Your task to perform on an android device: turn on wifi Image 0: 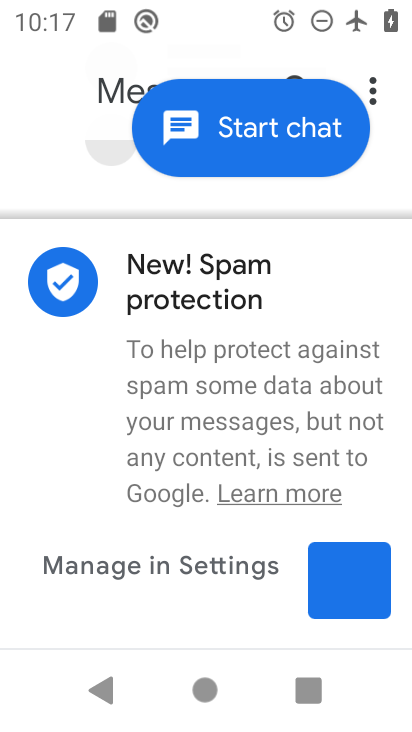
Step 0: press home button
Your task to perform on an android device: turn on wifi Image 1: 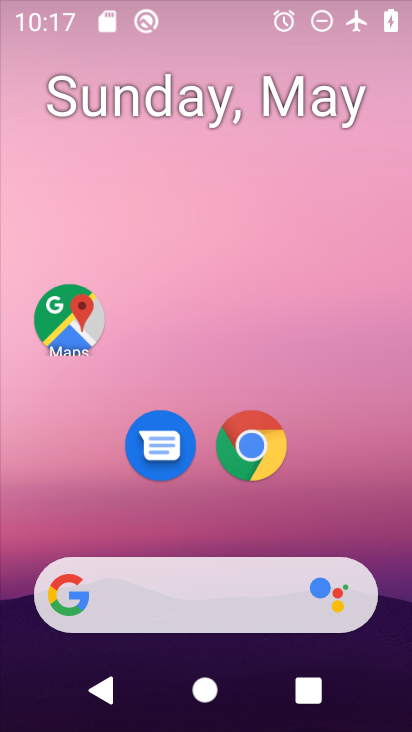
Step 1: drag from (241, 382) to (298, 21)
Your task to perform on an android device: turn on wifi Image 2: 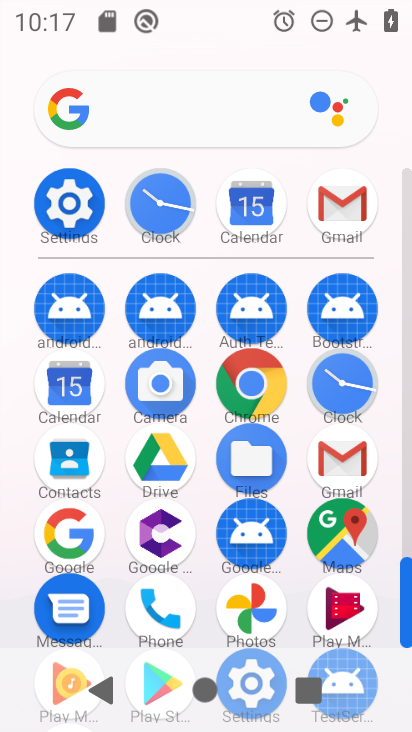
Step 2: click (58, 220)
Your task to perform on an android device: turn on wifi Image 3: 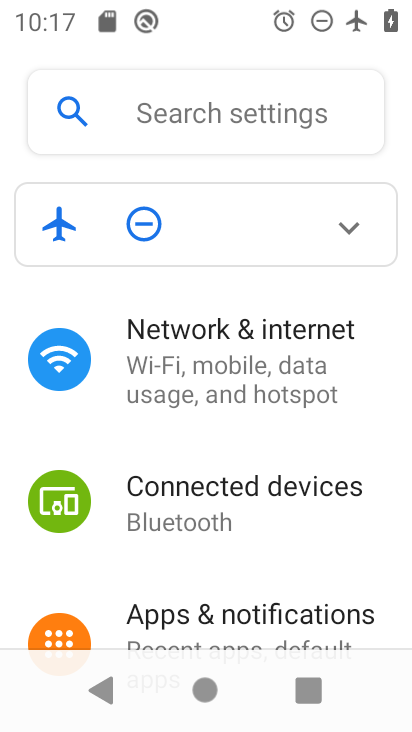
Step 3: click (247, 384)
Your task to perform on an android device: turn on wifi Image 4: 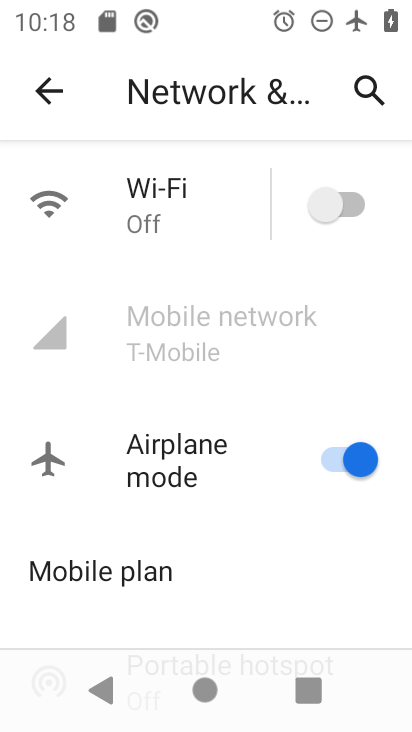
Step 4: drag from (184, 533) to (201, 367)
Your task to perform on an android device: turn on wifi Image 5: 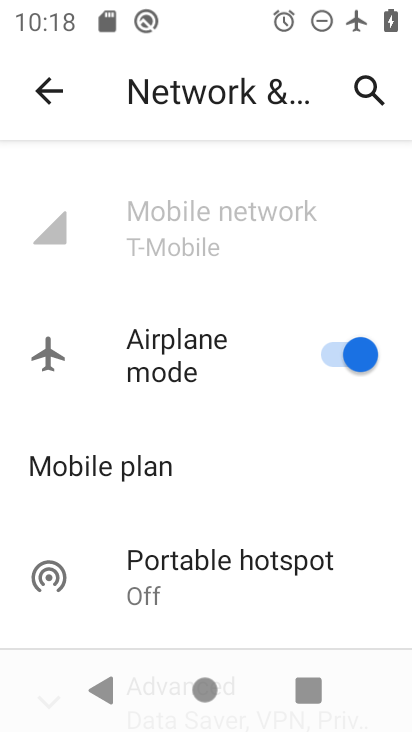
Step 5: drag from (234, 365) to (178, 662)
Your task to perform on an android device: turn on wifi Image 6: 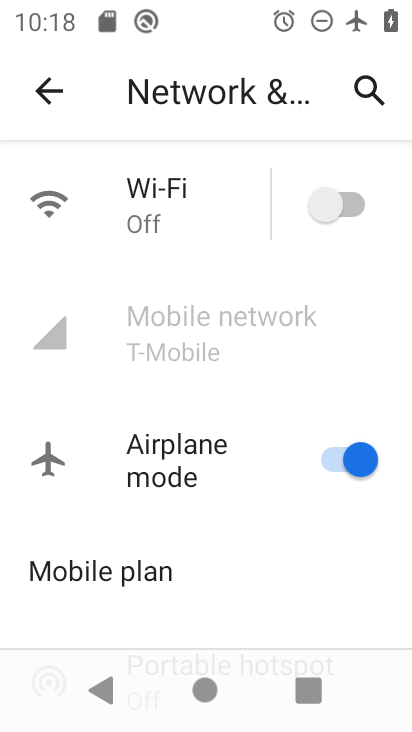
Step 6: click (356, 213)
Your task to perform on an android device: turn on wifi Image 7: 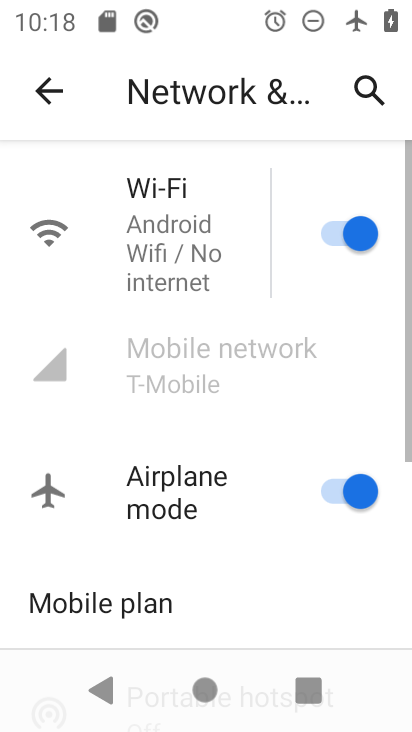
Step 7: task complete